Your task to perform on an android device: toggle wifi Image 0: 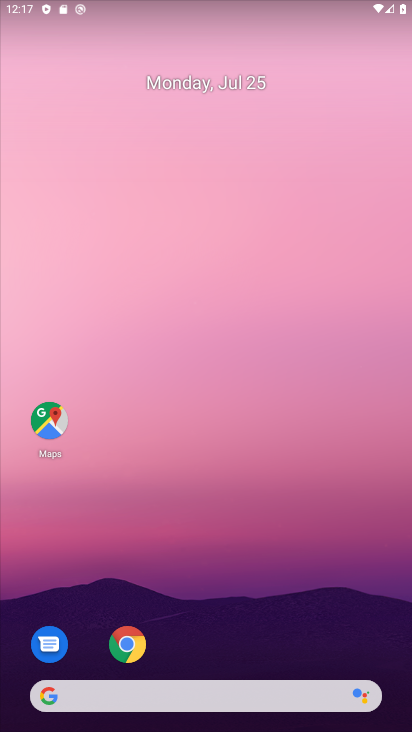
Step 0: drag from (292, 446) to (295, 25)
Your task to perform on an android device: toggle wifi Image 1: 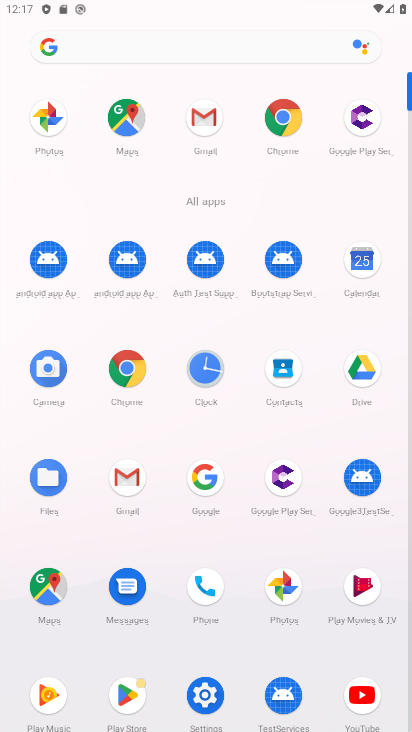
Step 1: click (202, 700)
Your task to perform on an android device: toggle wifi Image 2: 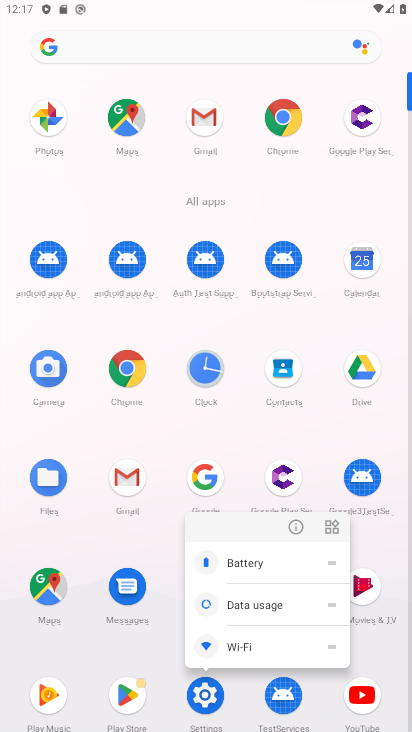
Step 2: click (202, 700)
Your task to perform on an android device: toggle wifi Image 3: 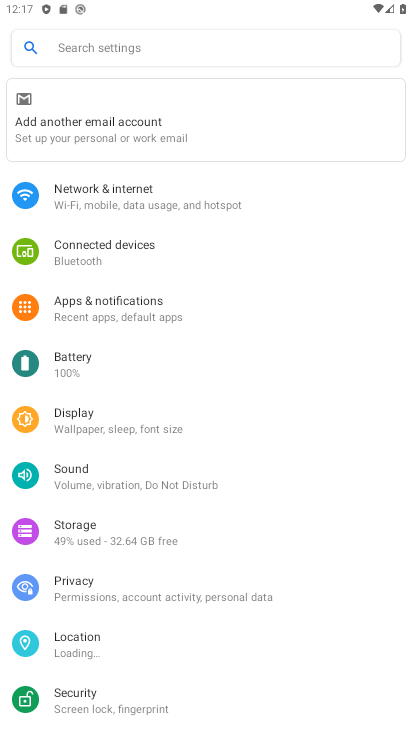
Step 3: click (101, 201)
Your task to perform on an android device: toggle wifi Image 4: 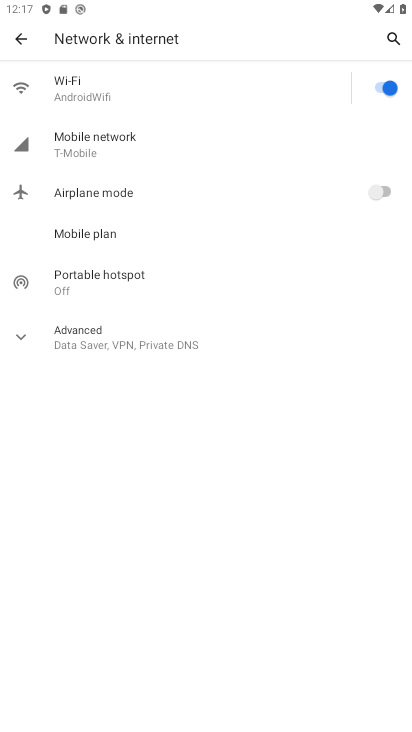
Step 4: click (380, 79)
Your task to perform on an android device: toggle wifi Image 5: 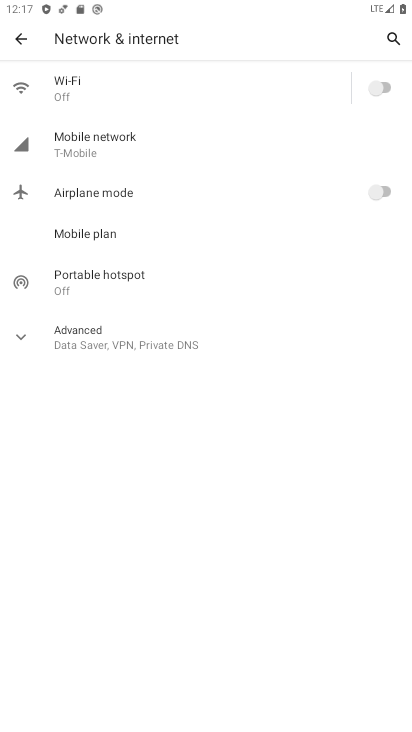
Step 5: task complete